Your task to perform on an android device: turn on wifi Image 0: 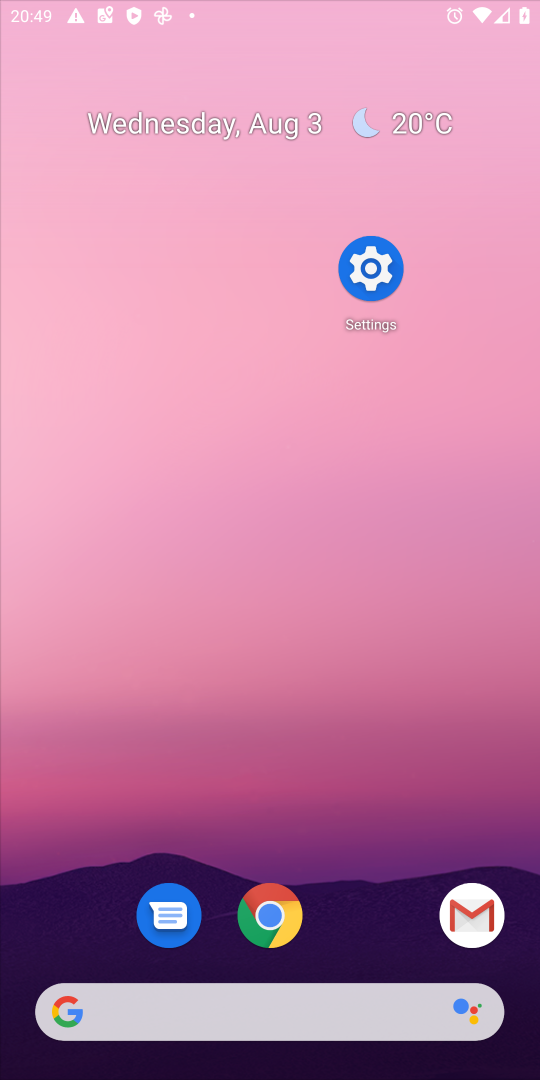
Step 0: press home button
Your task to perform on an android device: turn on wifi Image 1: 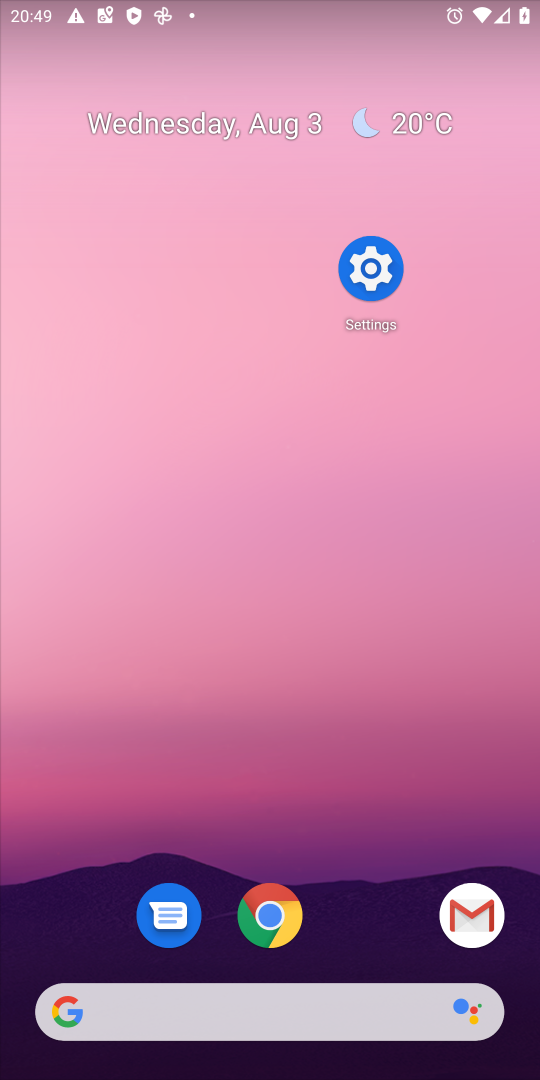
Step 1: drag from (425, 1030) to (87, 267)
Your task to perform on an android device: turn on wifi Image 2: 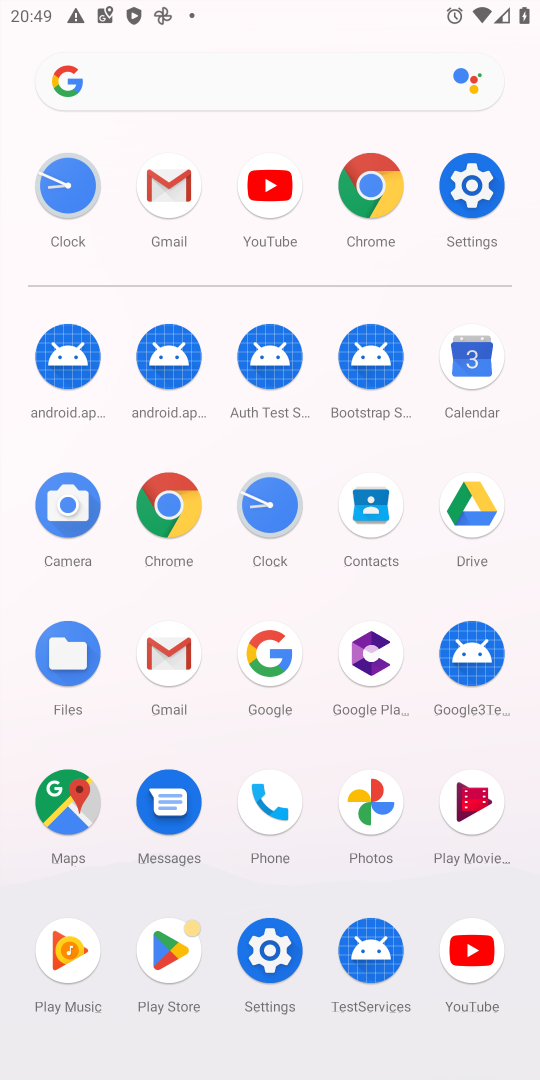
Step 2: click (468, 196)
Your task to perform on an android device: turn on wifi Image 3: 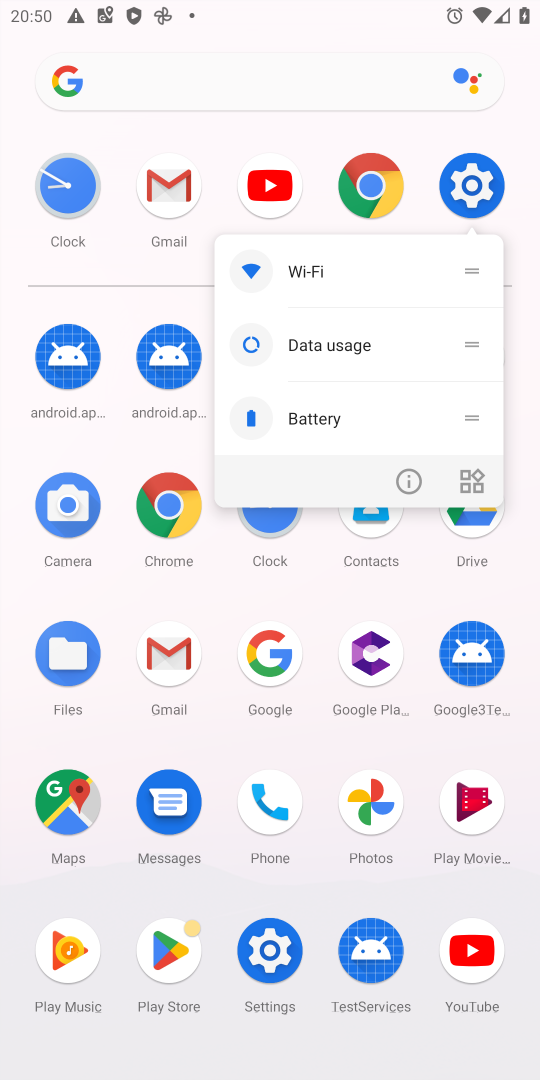
Step 3: click (465, 189)
Your task to perform on an android device: turn on wifi Image 4: 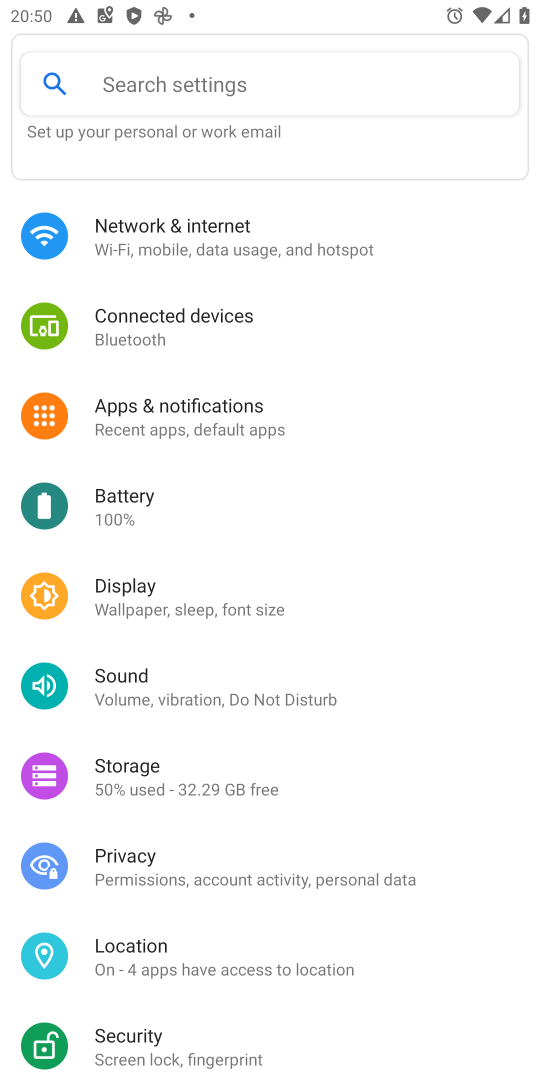
Step 4: click (193, 222)
Your task to perform on an android device: turn on wifi Image 5: 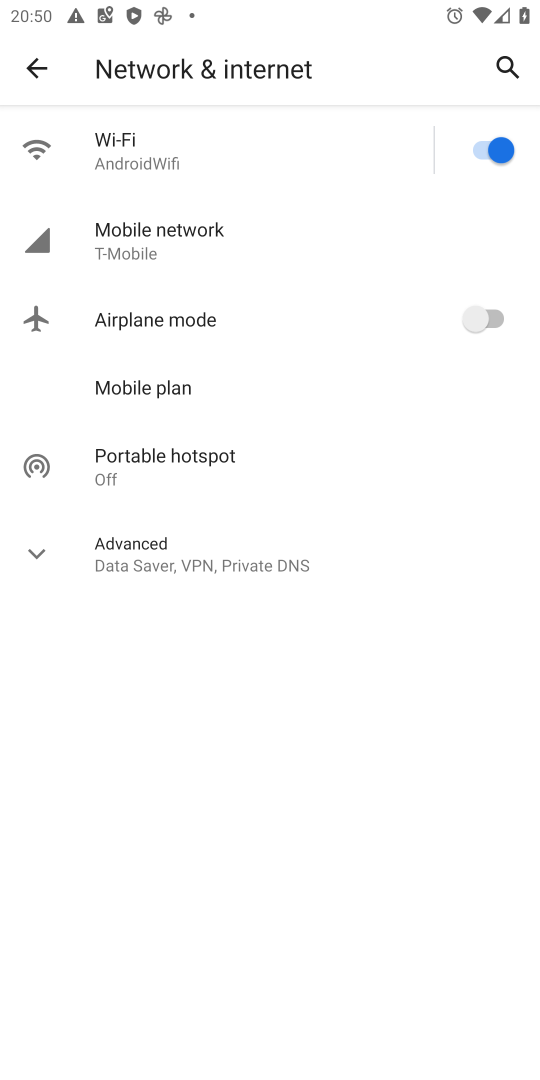
Step 5: click (197, 150)
Your task to perform on an android device: turn on wifi Image 6: 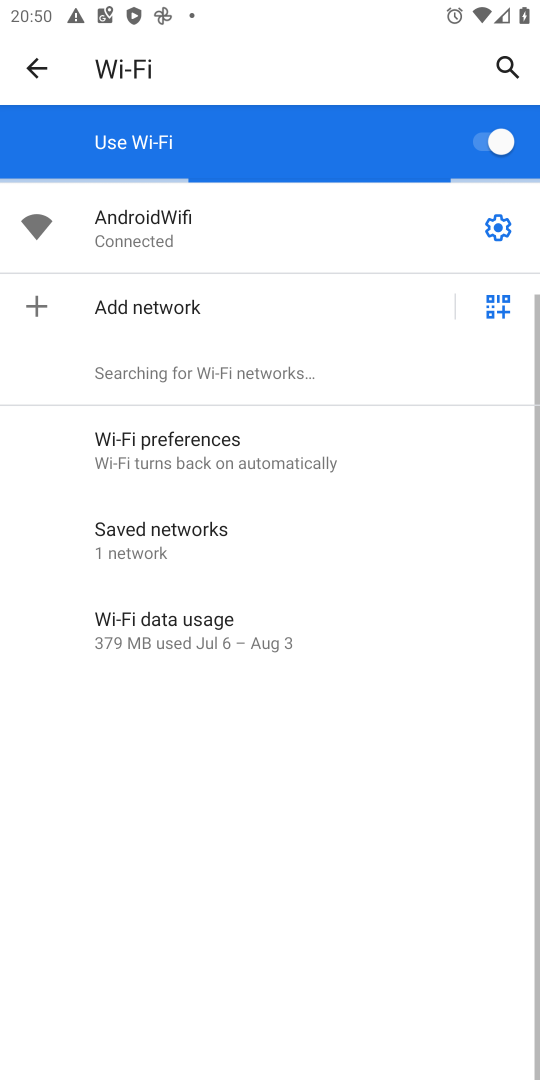
Step 6: click (483, 145)
Your task to perform on an android device: turn on wifi Image 7: 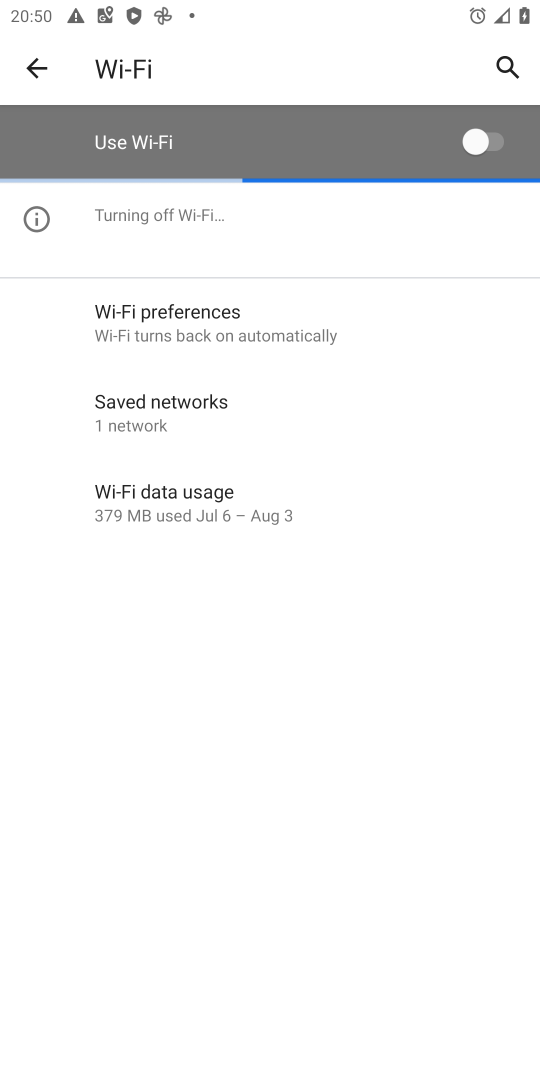
Step 7: click (476, 146)
Your task to perform on an android device: turn on wifi Image 8: 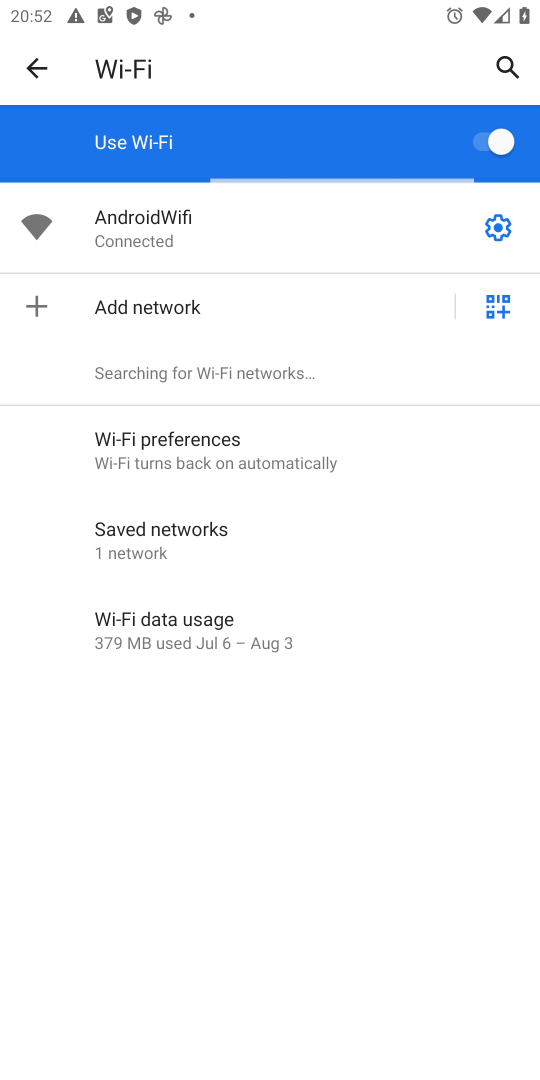
Step 8: task complete